Your task to perform on an android device: change timer sound Image 0: 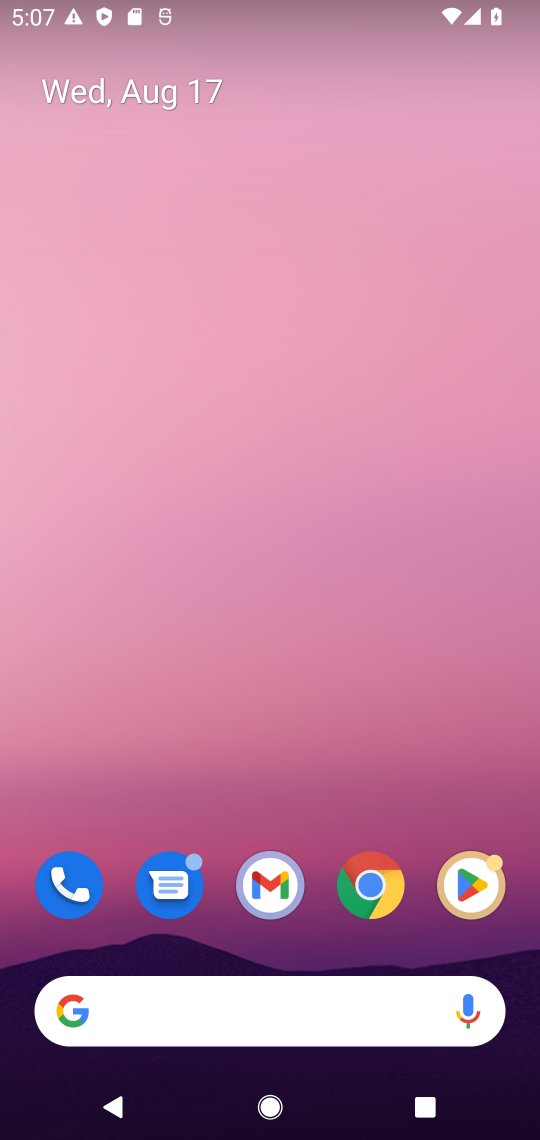
Step 0: press home button
Your task to perform on an android device: change timer sound Image 1: 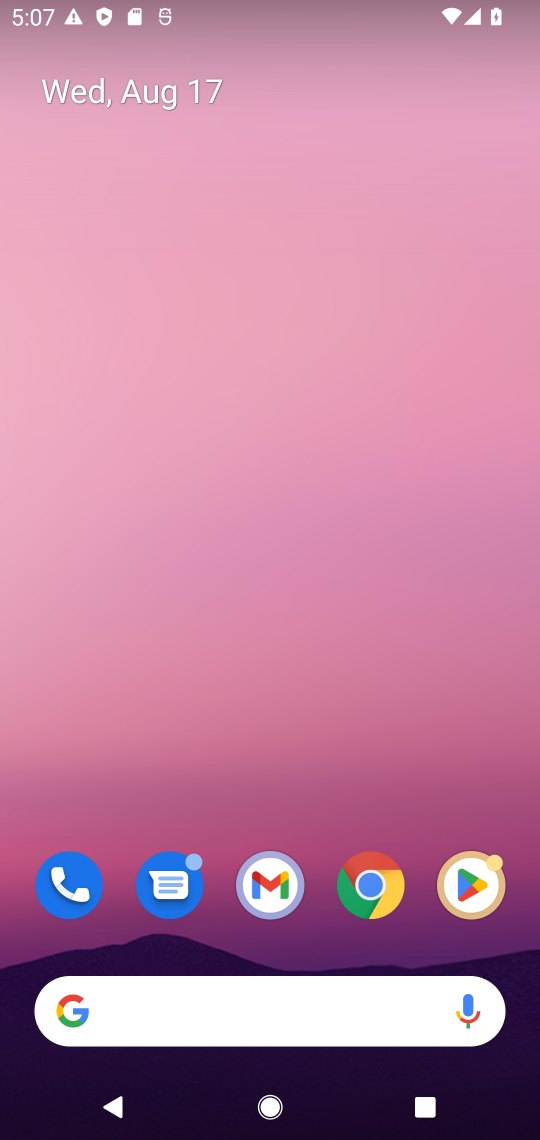
Step 1: press home button
Your task to perform on an android device: change timer sound Image 2: 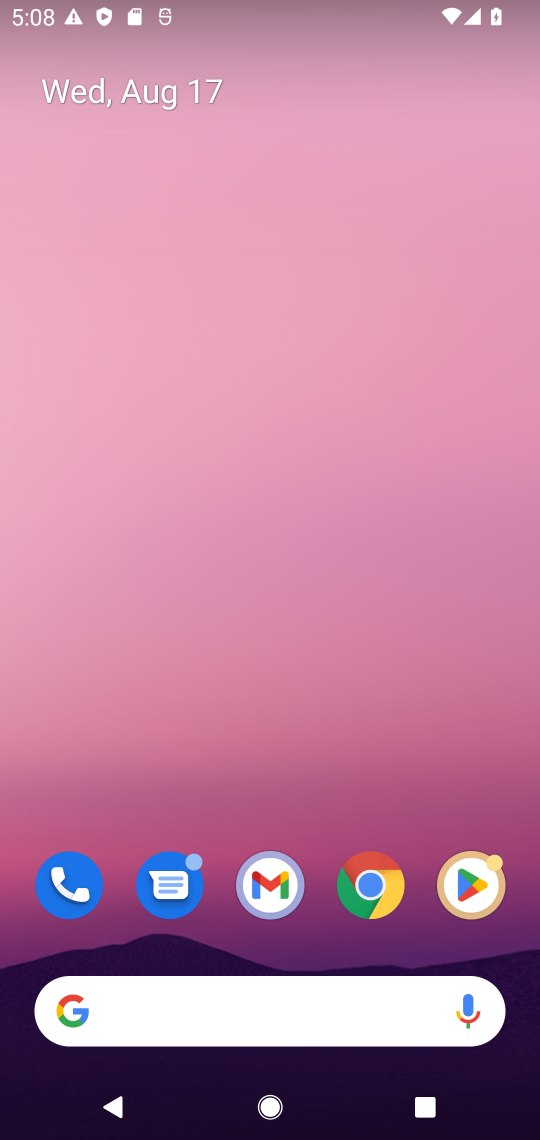
Step 2: drag from (331, 847) to (375, 236)
Your task to perform on an android device: change timer sound Image 3: 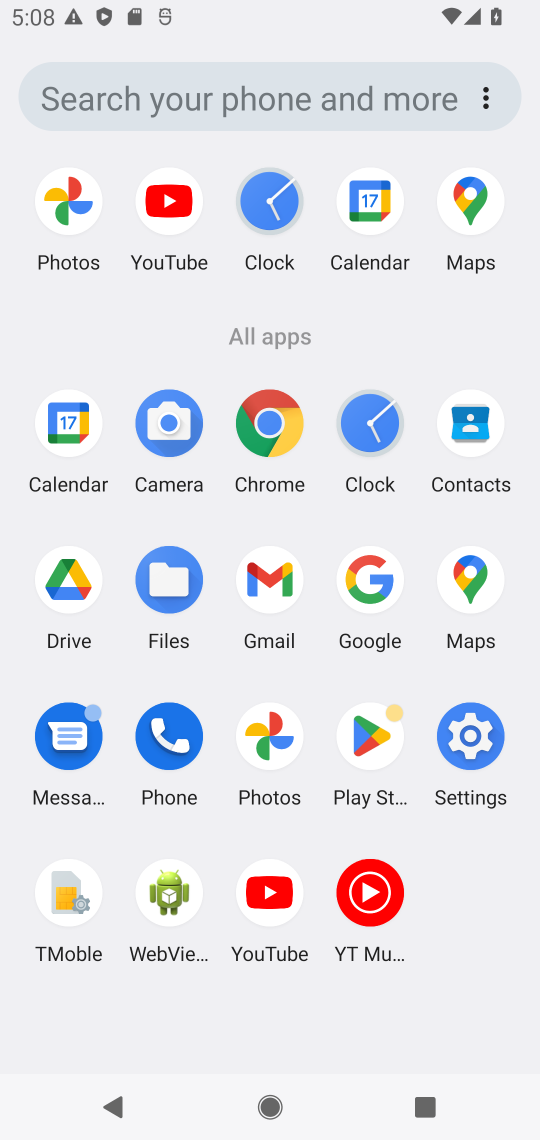
Step 3: click (377, 425)
Your task to perform on an android device: change timer sound Image 4: 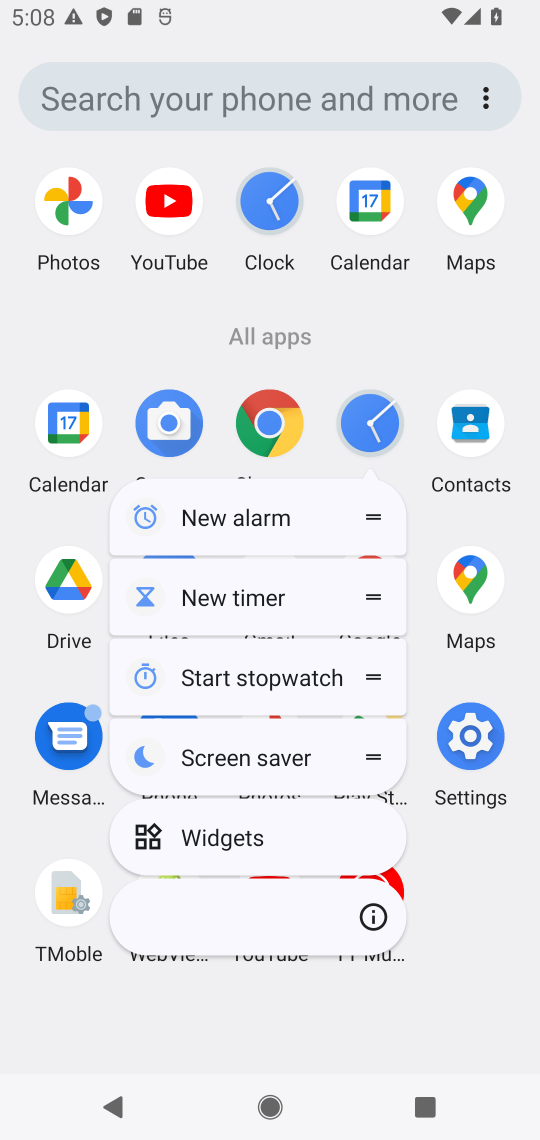
Step 4: click (375, 422)
Your task to perform on an android device: change timer sound Image 5: 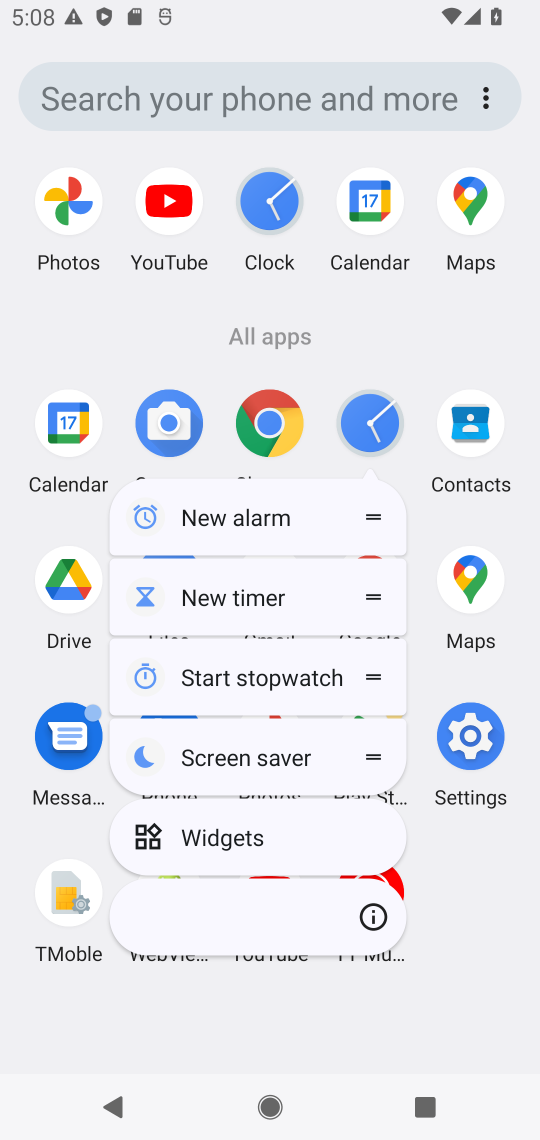
Step 5: click (369, 425)
Your task to perform on an android device: change timer sound Image 6: 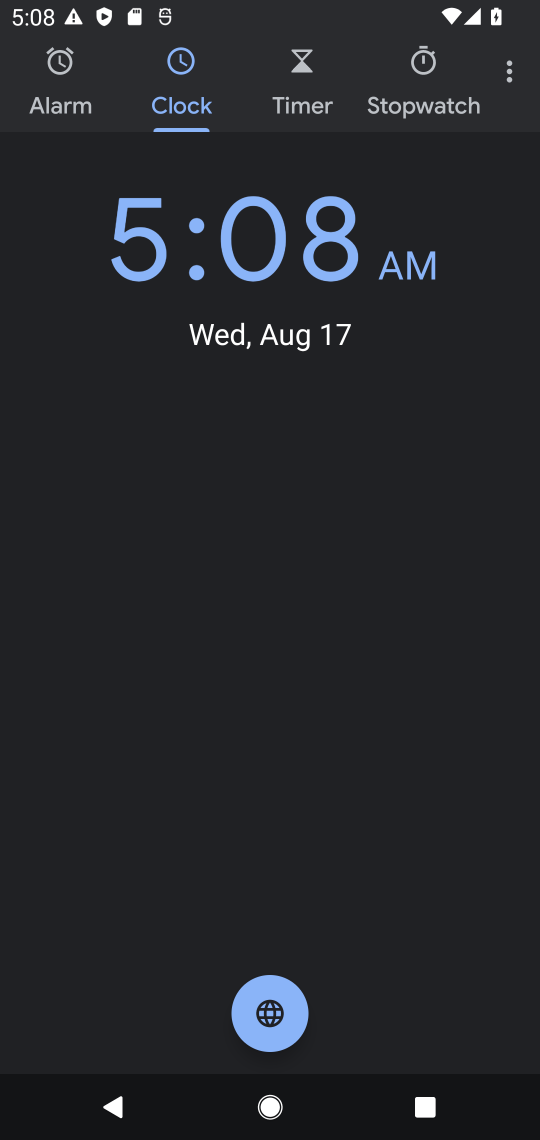
Step 6: click (516, 68)
Your task to perform on an android device: change timer sound Image 7: 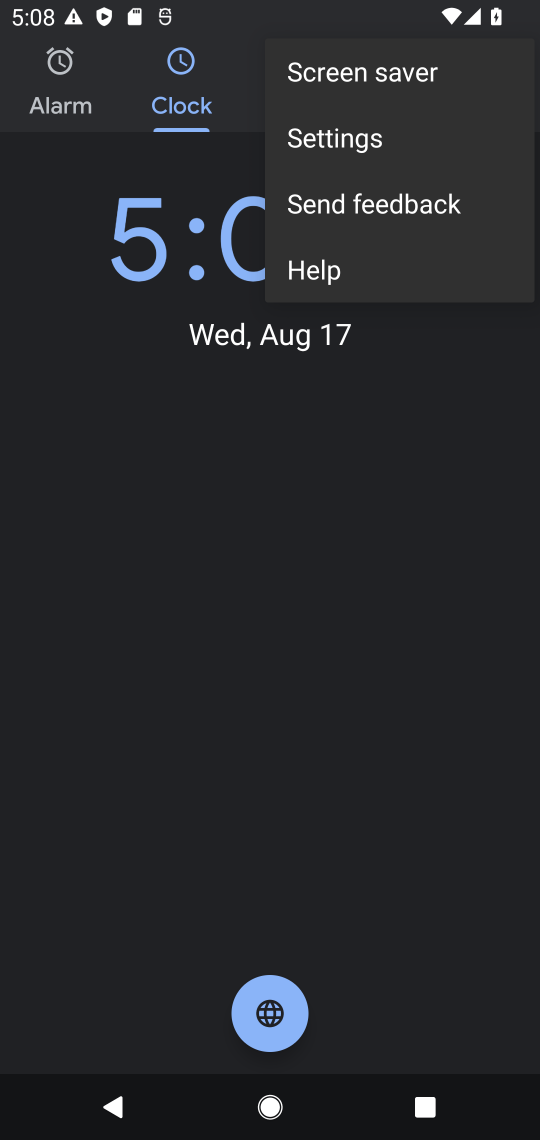
Step 7: click (335, 140)
Your task to perform on an android device: change timer sound Image 8: 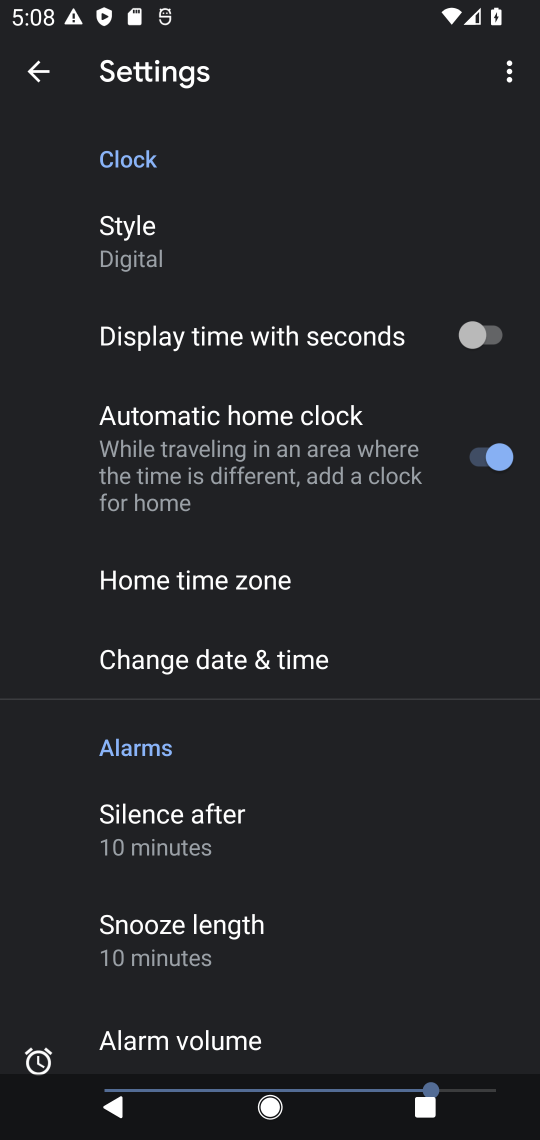
Step 8: drag from (384, 983) to (406, 341)
Your task to perform on an android device: change timer sound Image 9: 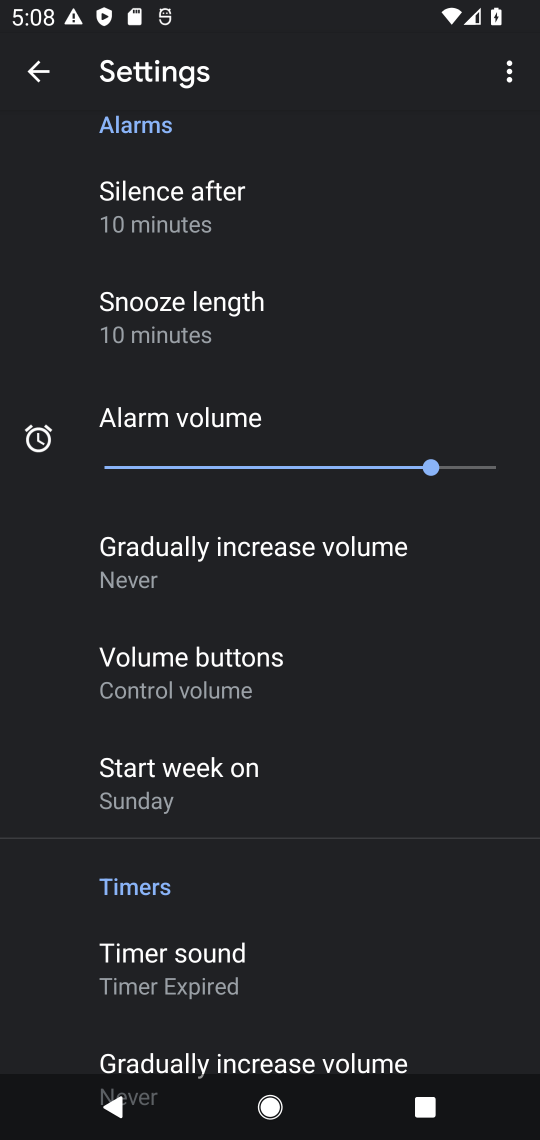
Step 9: click (199, 981)
Your task to perform on an android device: change timer sound Image 10: 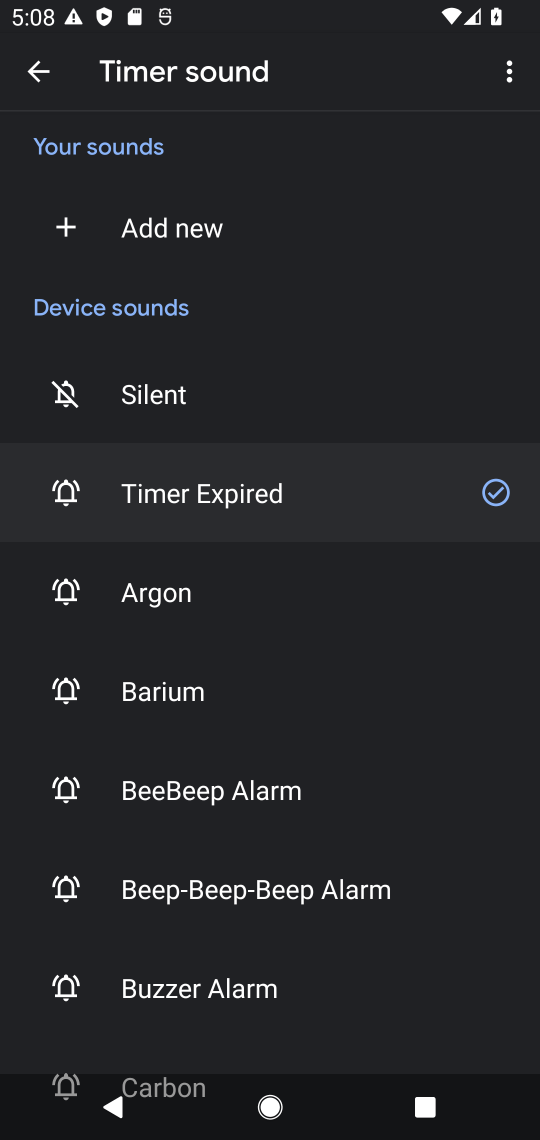
Step 10: click (229, 636)
Your task to perform on an android device: change timer sound Image 11: 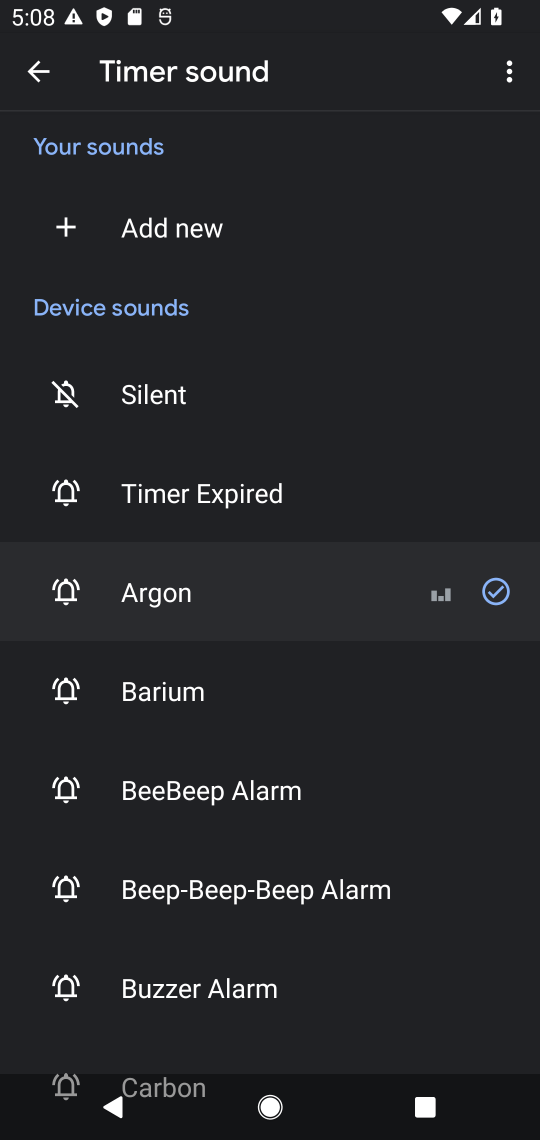
Step 11: task complete